Your task to perform on an android device: View the shopping cart on ebay. Image 0: 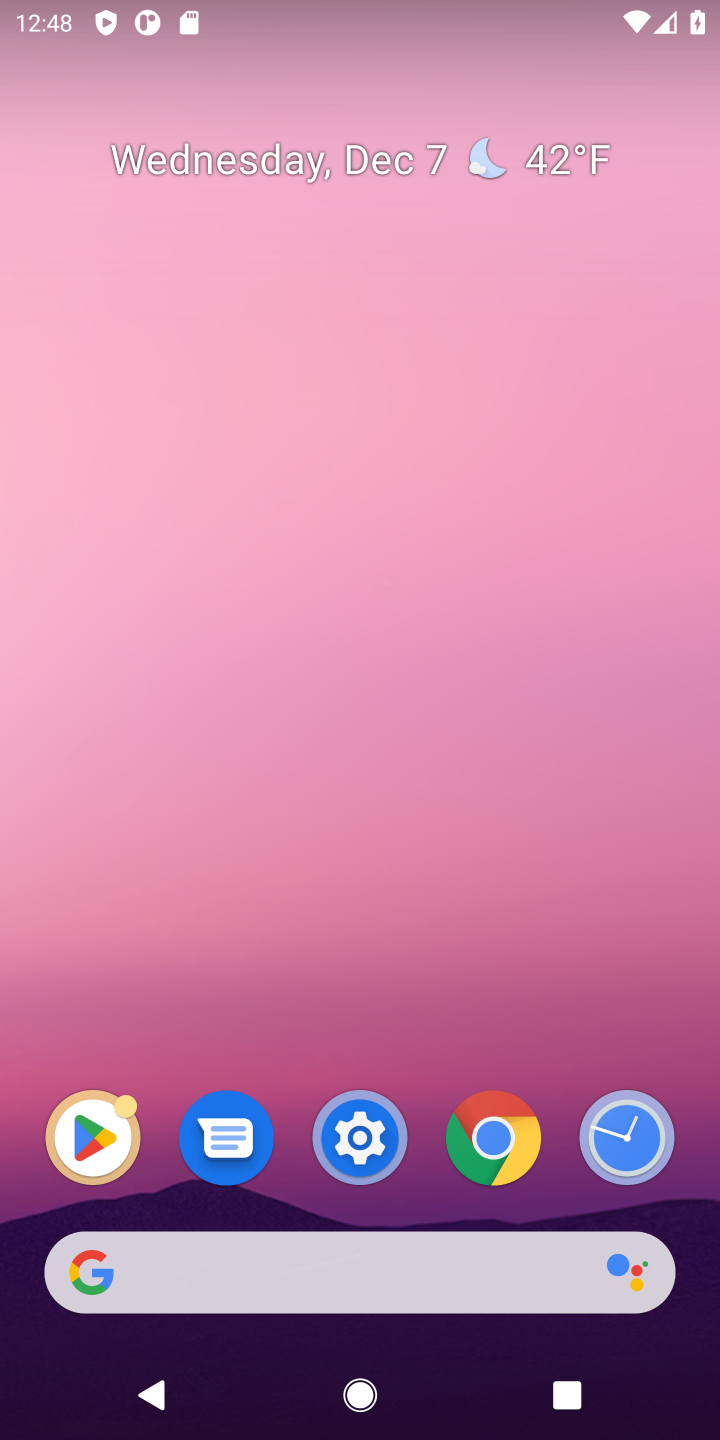
Step 0: click (301, 1252)
Your task to perform on an android device: View the shopping cart on ebay. Image 1: 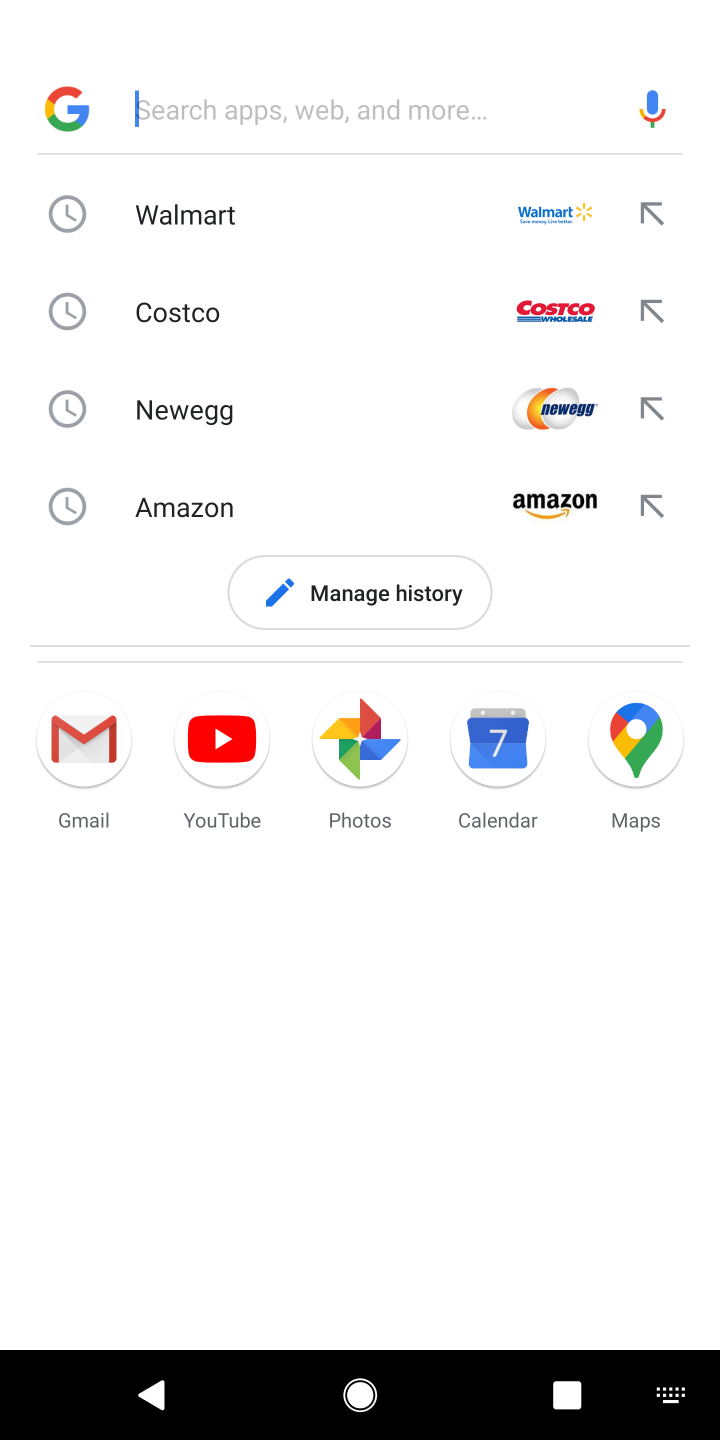
Step 1: type "ebay"
Your task to perform on an android device: View the shopping cart on ebay. Image 2: 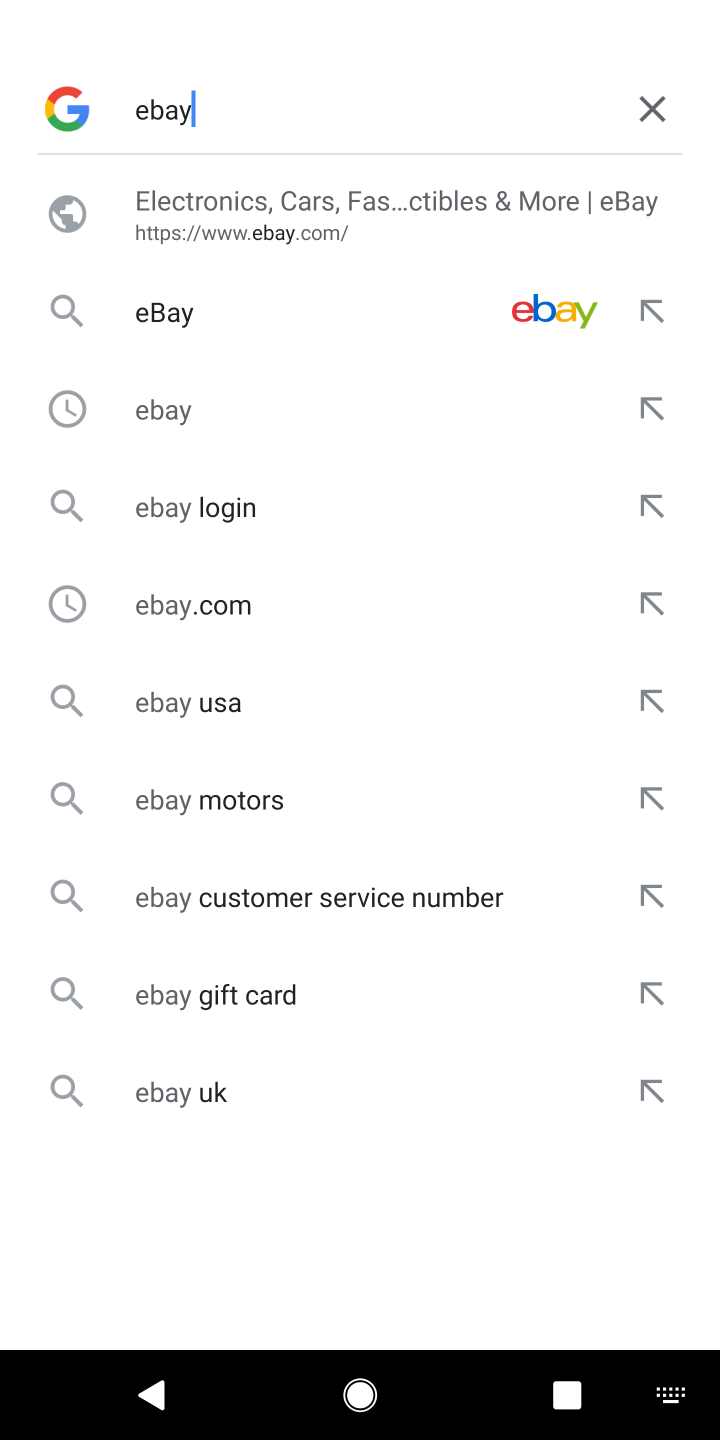
Step 2: click (212, 321)
Your task to perform on an android device: View the shopping cart on ebay. Image 3: 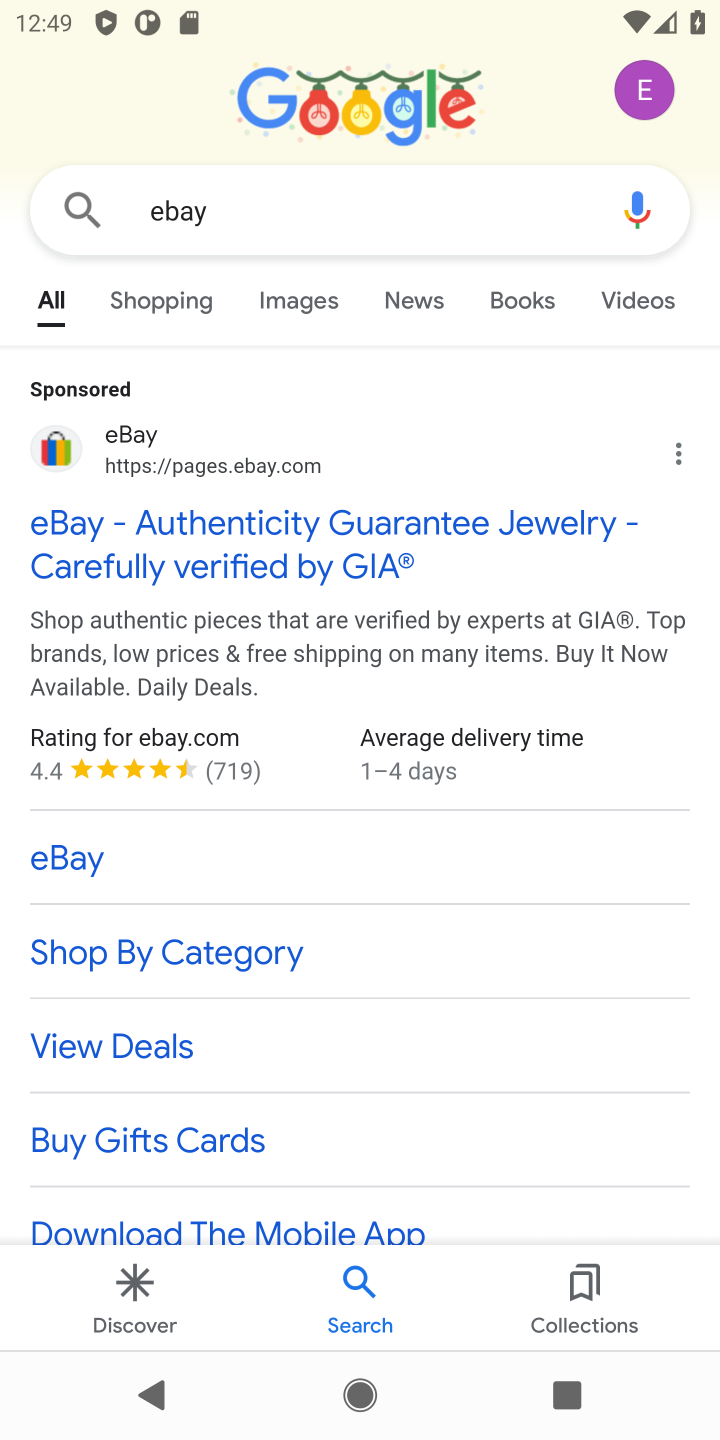
Step 3: click (246, 555)
Your task to perform on an android device: View the shopping cart on ebay. Image 4: 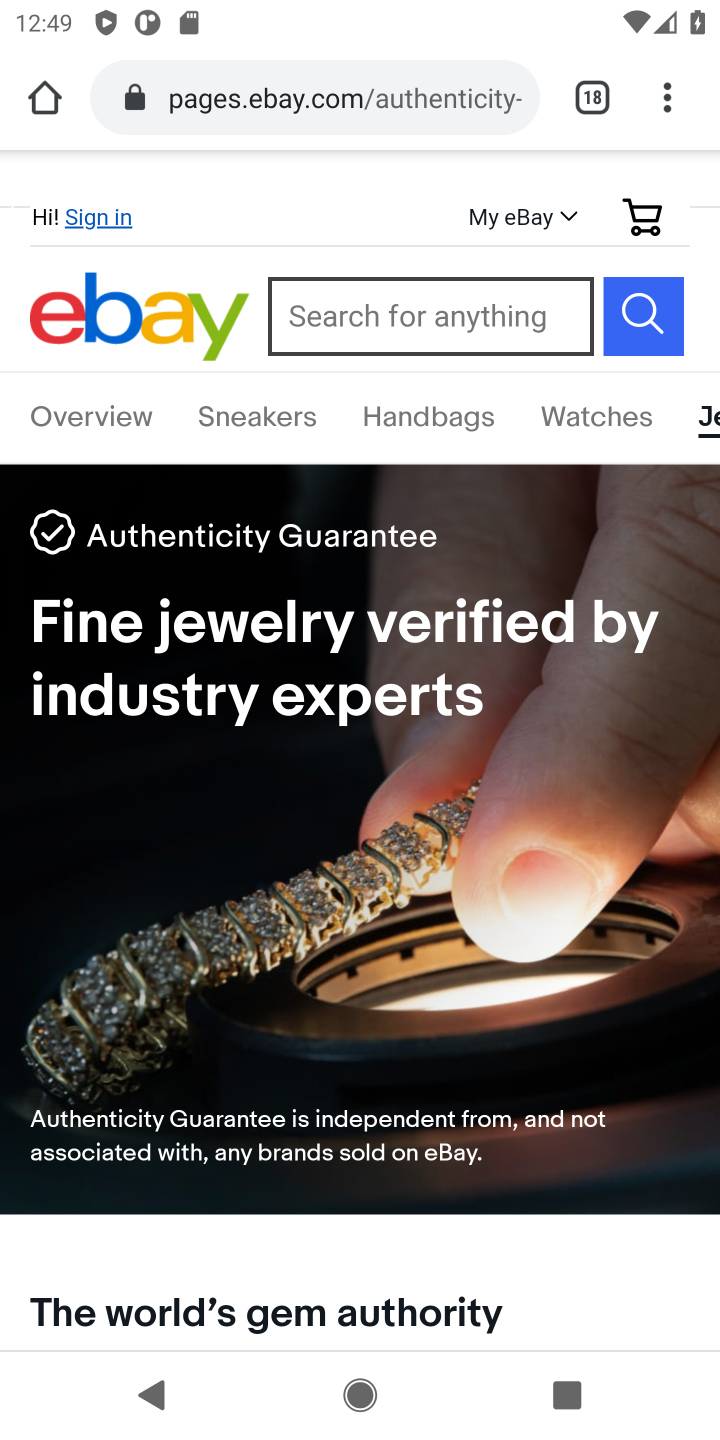
Step 4: click (646, 204)
Your task to perform on an android device: View the shopping cart on ebay. Image 5: 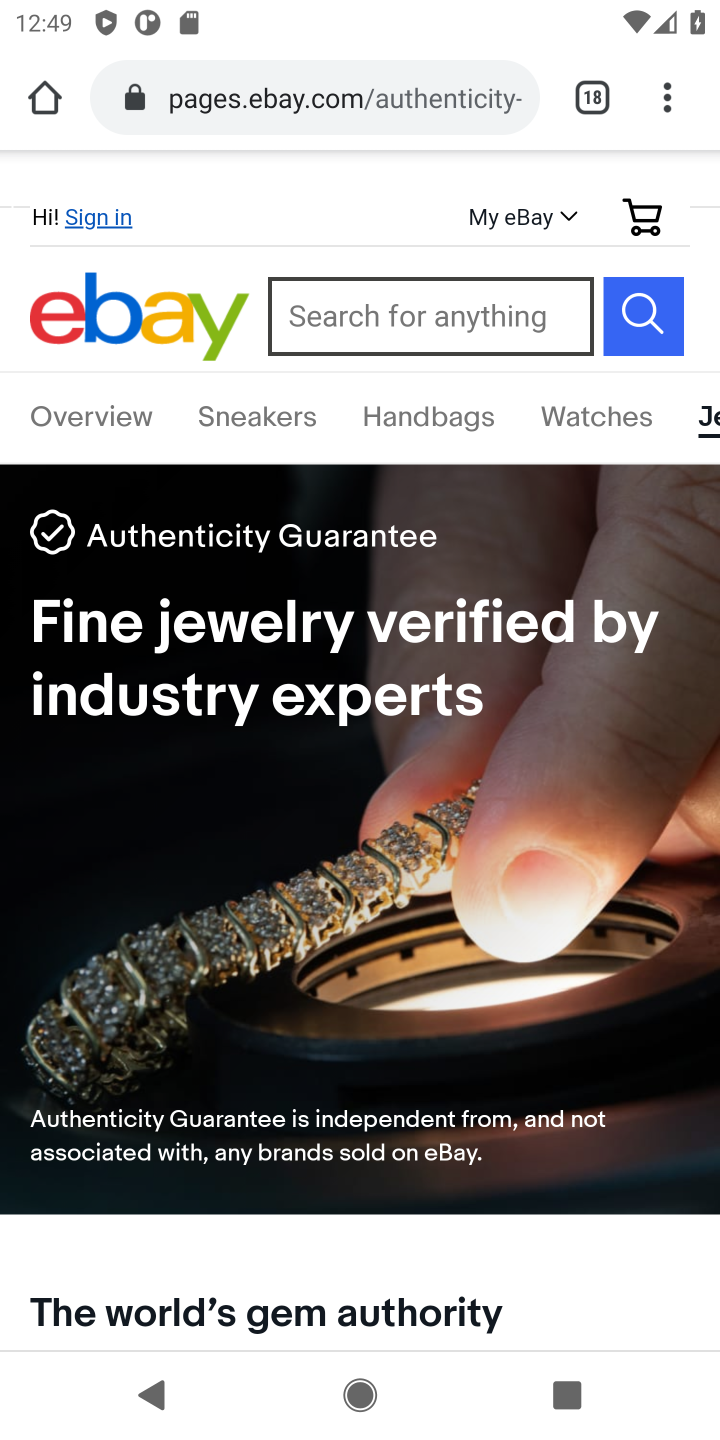
Step 5: task complete